Your task to perform on an android device: toggle notifications settings in the gmail app Image 0: 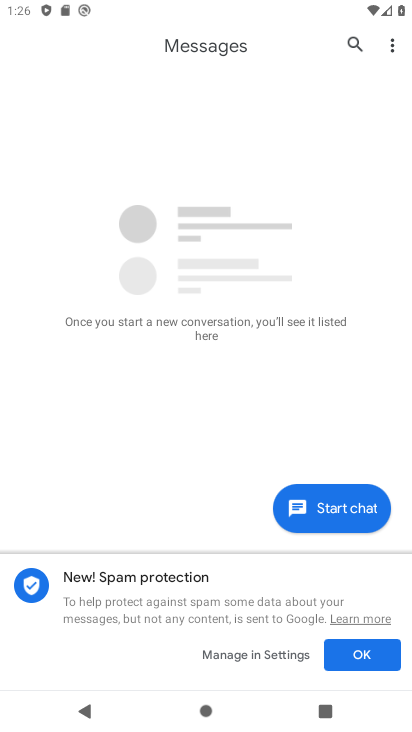
Step 0: press home button
Your task to perform on an android device: toggle notifications settings in the gmail app Image 1: 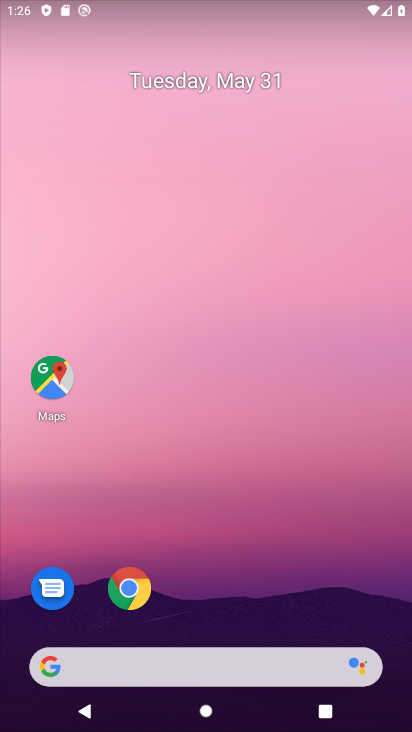
Step 1: drag from (226, 608) to (155, 214)
Your task to perform on an android device: toggle notifications settings in the gmail app Image 2: 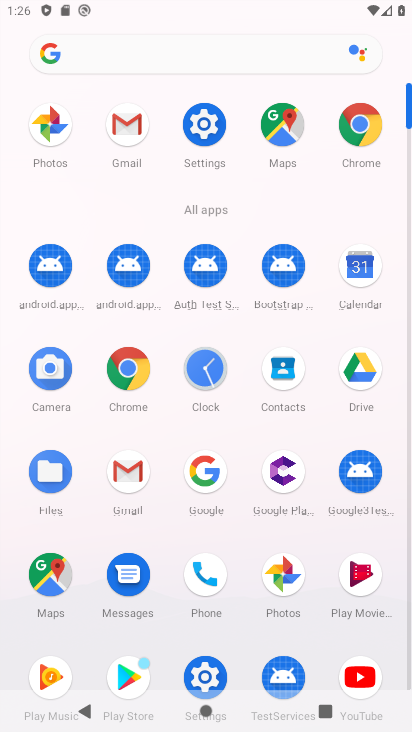
Step 2: click (130, 120)
Your task to perform on an android device: toggle notifications settings in the gmail app Image 3: 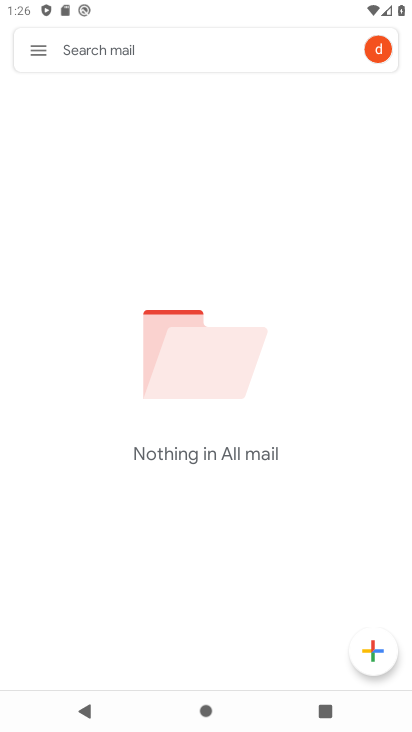
Step 3: click (42, 54)
Your task to perform on an android device: toggle notifications settings in the gmail app Image 4: 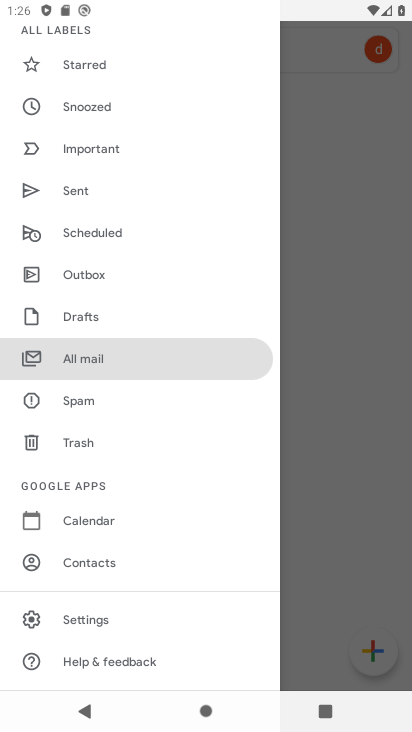
Step 4: click (142, 616)
Your task to perform on an android device: toggle notifications settings in the gmail app Image 5: 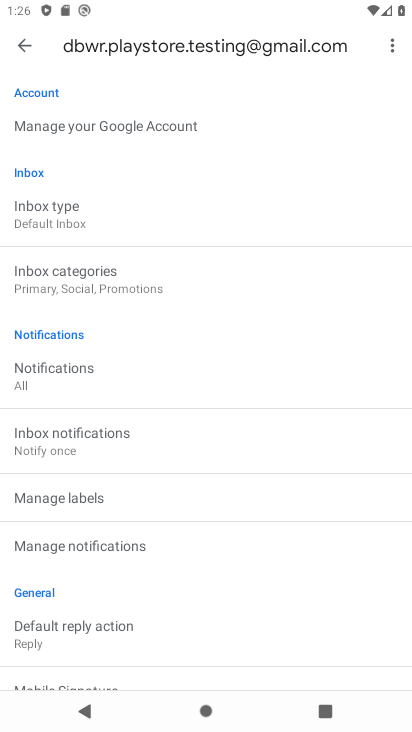
Step 5: click (144, 546)
Your task to perform on an android device: toggle notifications settings in the gmail app Image 6: 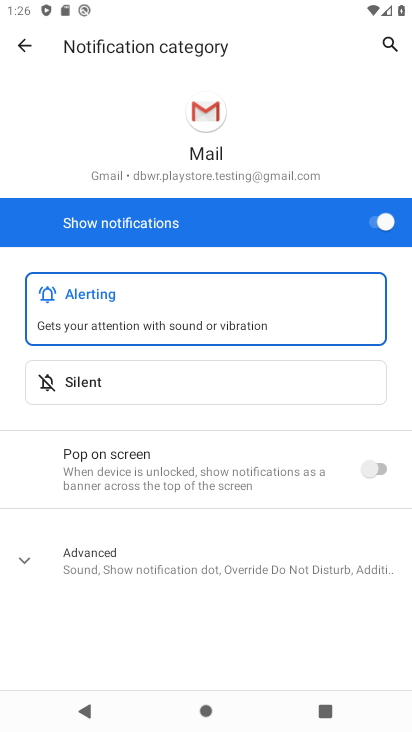
Step 6: click (239, 381)
Your task to perform on an android device: toggle notifications settings in the gmail app Image 7: 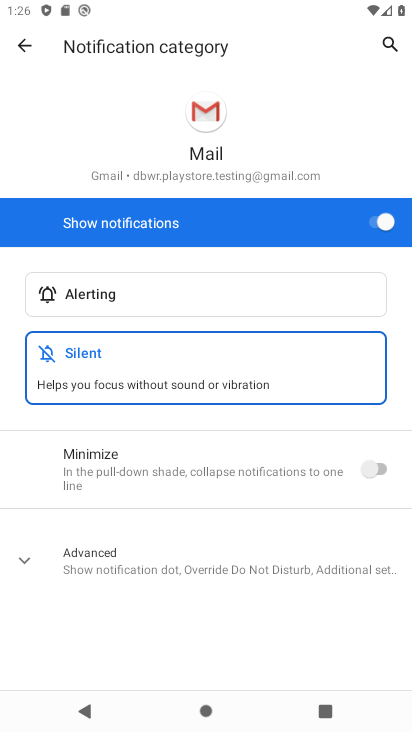
Step 7: click (379, 462)
Your task to perform on an android device: toggle notifications settings in the gmail app Image 8: 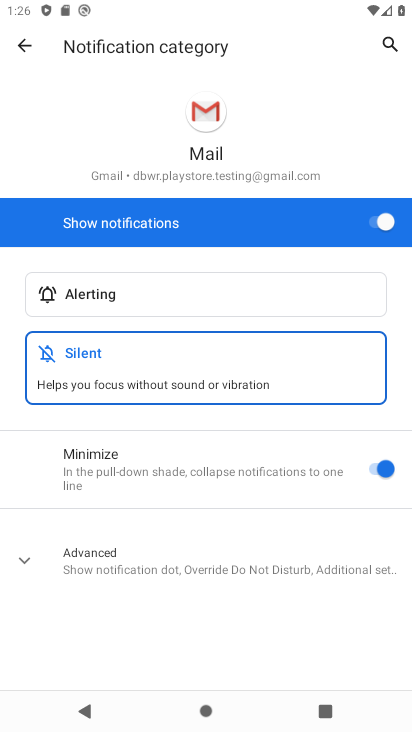
Step 8: task complete